Your task to perform on an android device: Search for Italian restaurants on Maps Image 0: 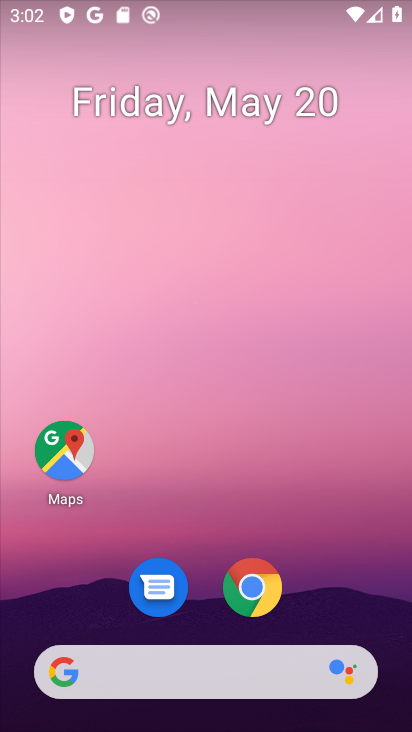
Step 0: press home button
Your task to perform on an android device: Search for Italian restaurants on Maps Image 1: 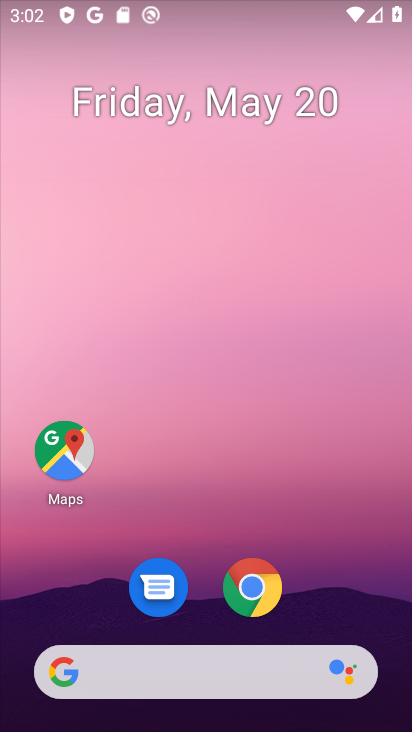
Step 1: click (60, 465)
Your task to perform on an android device: Search for Italian restaurants on Maps Image 2: 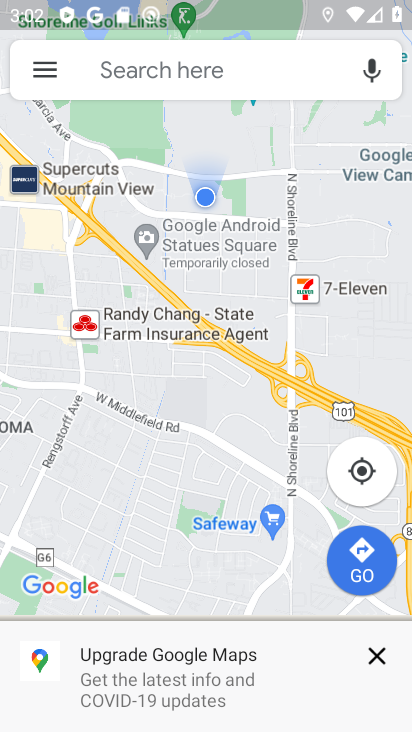
Step 2: click (179, 54)
Your task to perform on an android device: Search for Italian restaurants on Maps Image 3: 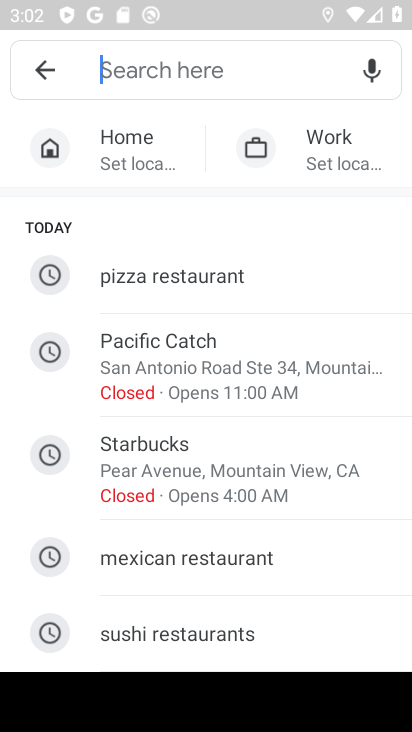
Step 3: drag from (275, 614) to (240, 633)
Your task to perform on an android device: Search for Italian restaurants on Maps Image 4: 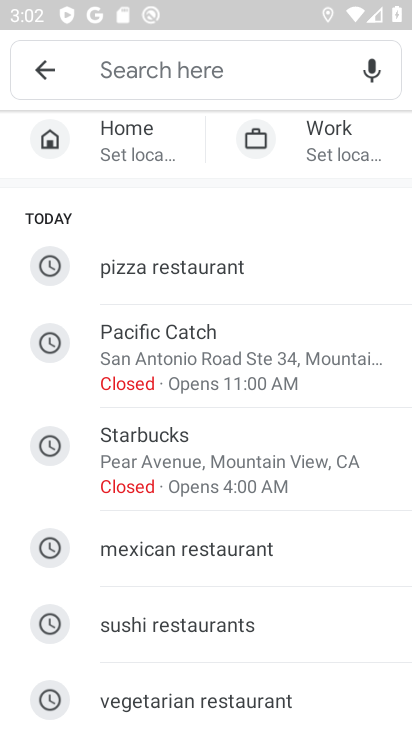
Step 4: click (160, 61)
Your task to perform on an android device: Search for Italian restaurants on Maps Image 5: 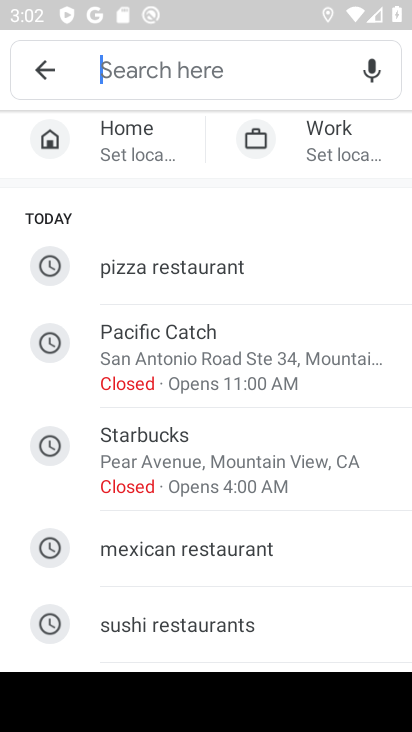
Step 5: type "italian"
Your task to perform on an android device: Search for Italian restaurants on Maps Image 6: 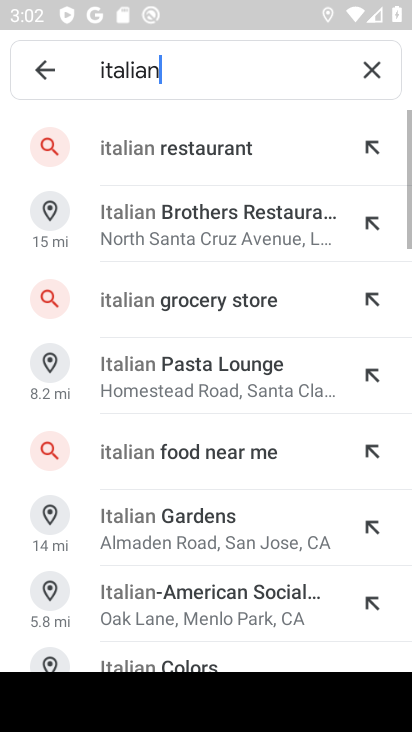
Step 6: click (183, 155)
Your task to perform on an android device: Search for Italian restaurants on Maps Image 7: 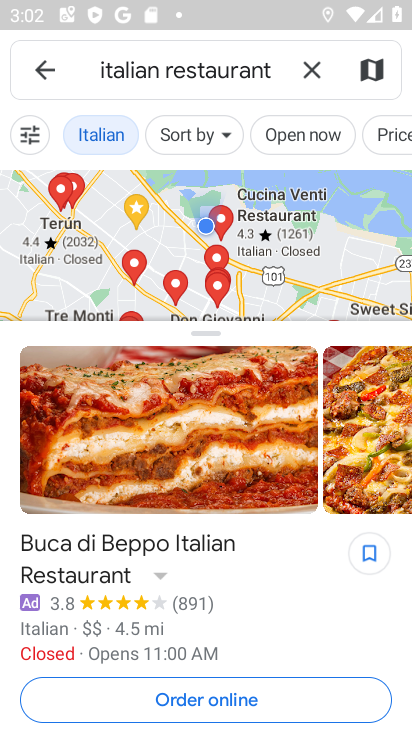
Step 7: task complete